Your task to perform on an android device: delete location history Image 0: 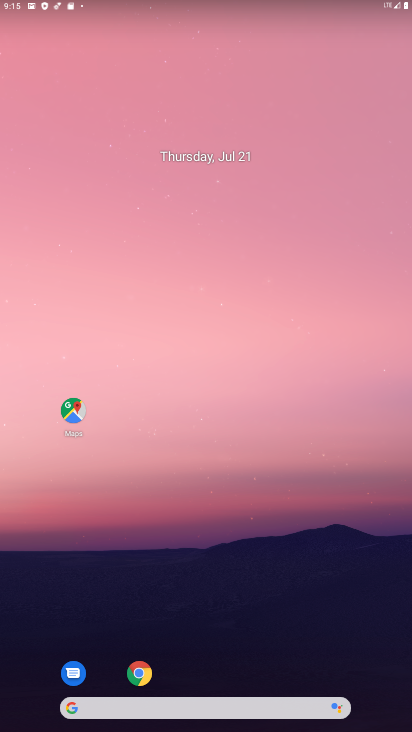
Step 0: drag from (184, 540) to (255, 114)
Your task to perform on an android device: delete location history Image 1: 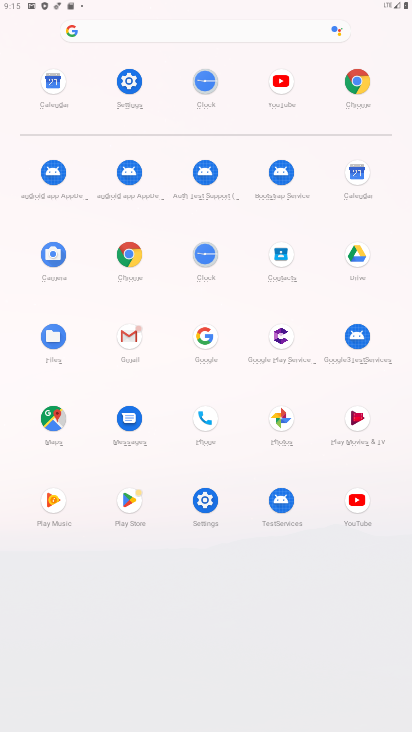
Step 1: click (207, 492)
Your task to perform on an android device: delete location history Image 2: 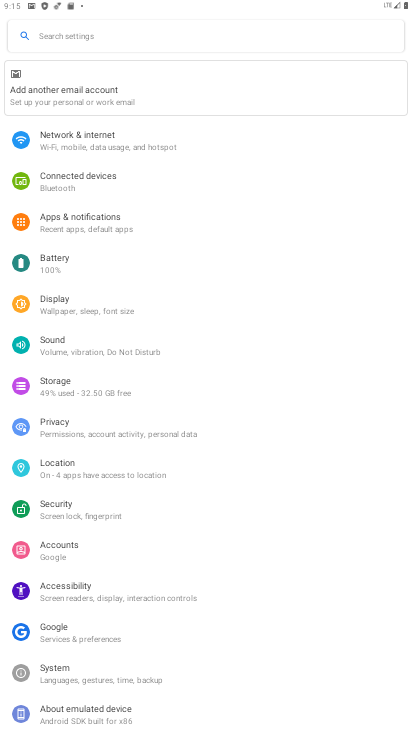
Step 2: click (109, 464)
Your task to perform on an android device: delete location history Image 3: 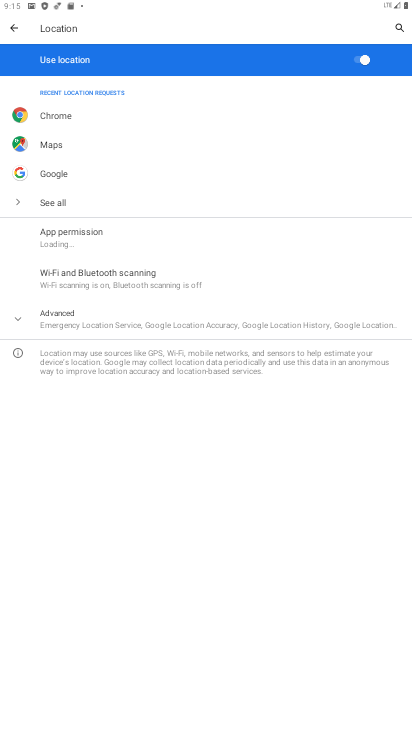
Step 3: drag from (202, 519) to (241, 307)
Your task to perform on an android device: delete location history Image 4: 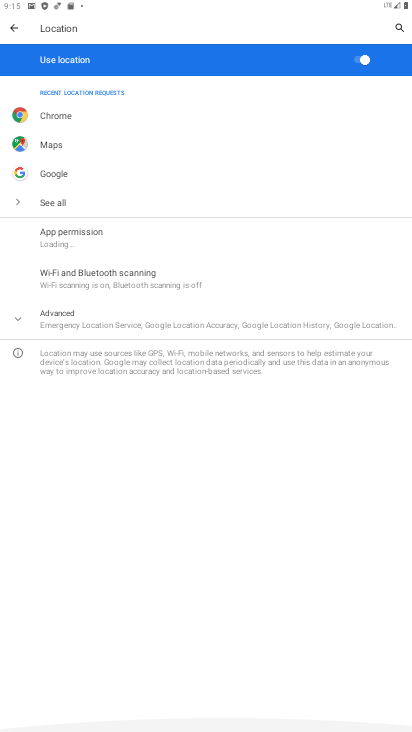
Step 4: click (106, 323)
Your task to perform on an android device: delete location history Image 5: 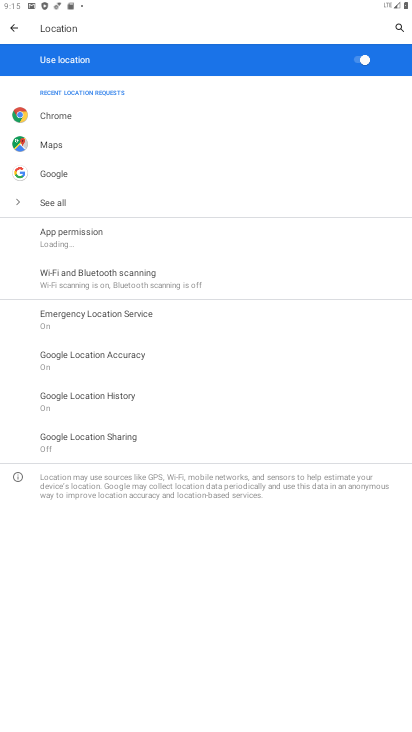
Step 5: click (146, 400)
Your task to perform on an android device: delete location history Image 6: 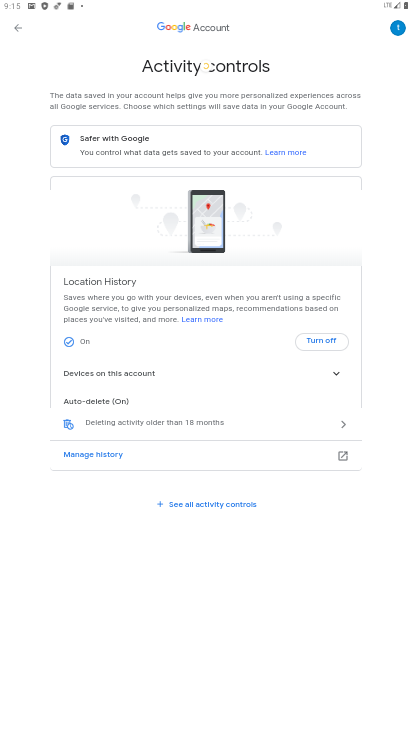
Step 6: drag from (179, 527) to (238, 161)
Your task to perform on an android device: delete location history Image 7: 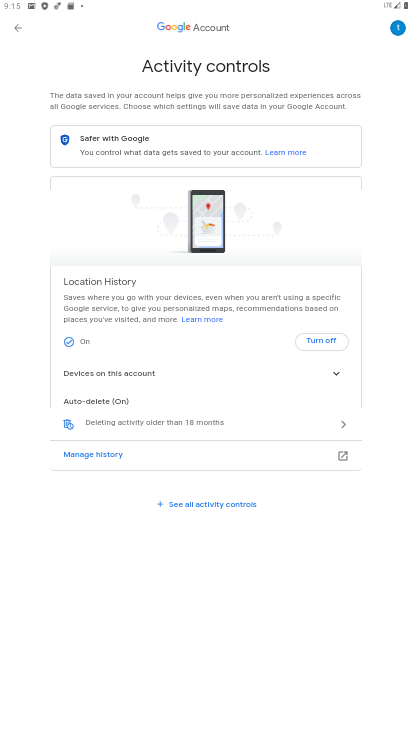
Step 7: click (72, 421)
Your task to perform on an android device: delete location history Image 8: 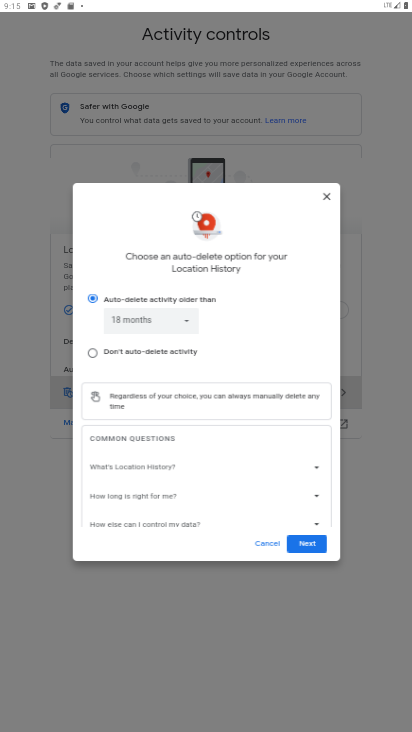
Step 8: drag from (251, 448) to (265, 298)
Your task to perform on an android device: delete location history Image 9: 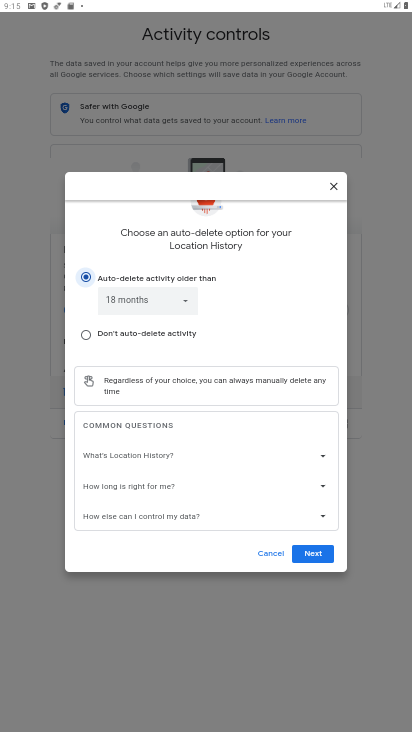
Step 9: click (307, 558)
Your task to perform on an android device: delete location history Image 10: 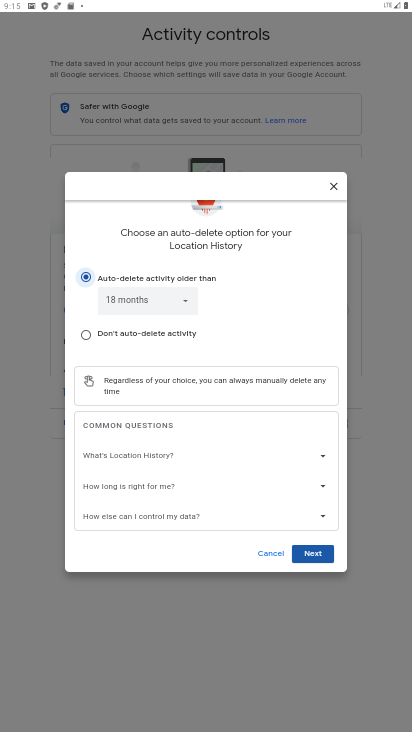
Step 10: click (307, 558)
Your task to perform on an android device: delete location history Image 11: 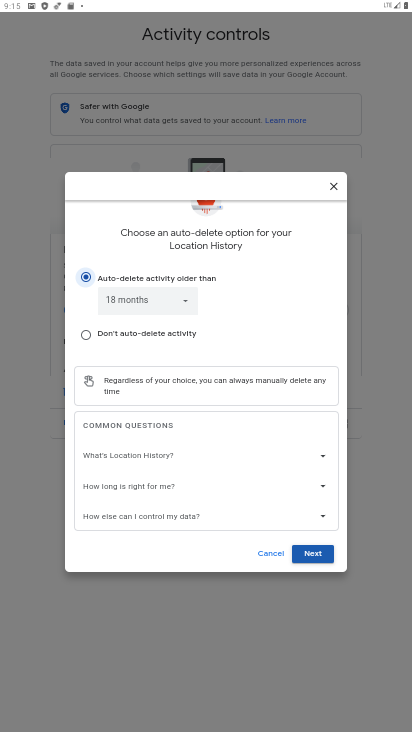
Step 11: click (311, 555)
Your task to perform on an android device: delete location history Image 12: 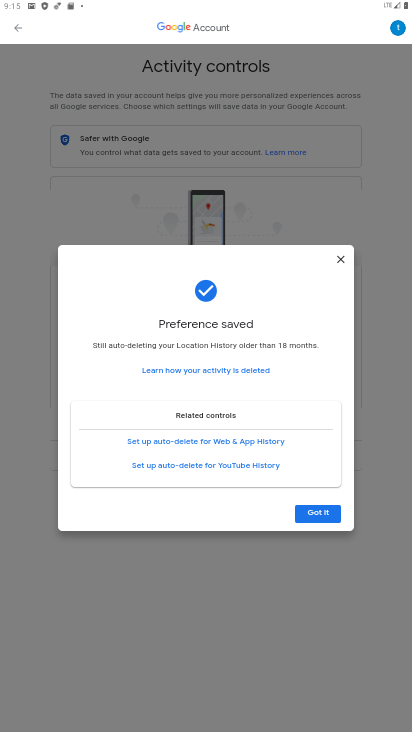
Step 12: click (308, 533)
Your task to perform on an android device: delete location history Image 13: 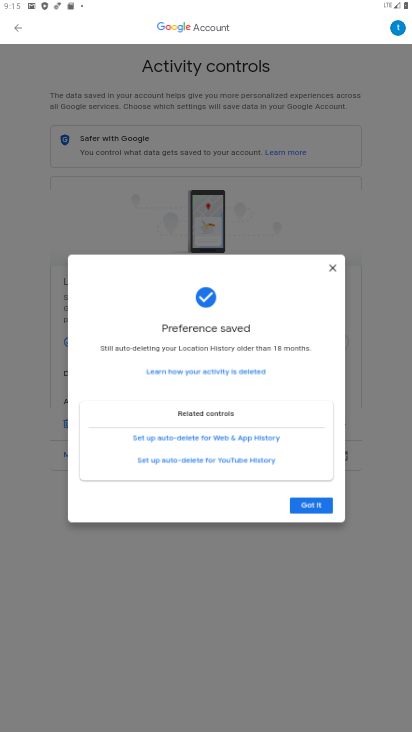
Step 13: click (315, 517)
Your task to perform on an android device: delete location history Image 14: 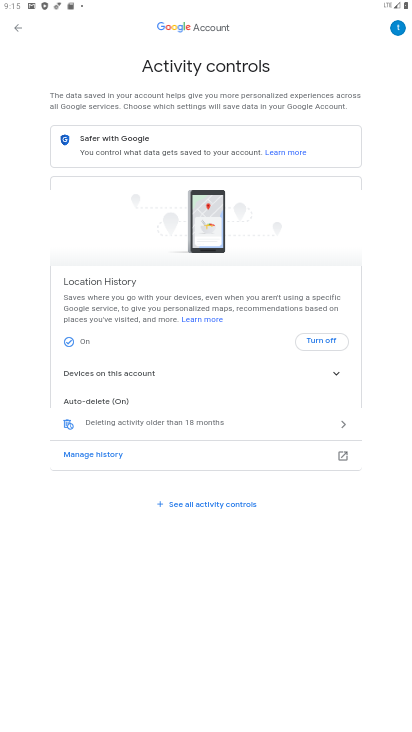
Step 14: task complete